Your task to perform on an android device: Open calendar and show me the second week of next month Image 0: 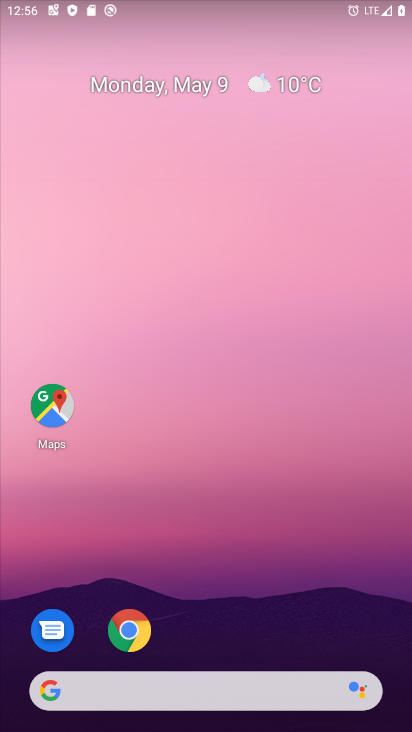
Step 0: drag from (347, 628) to (295, 44)
Your task to perform on an android device: Open calendar and show me the second week of next month Image 1: 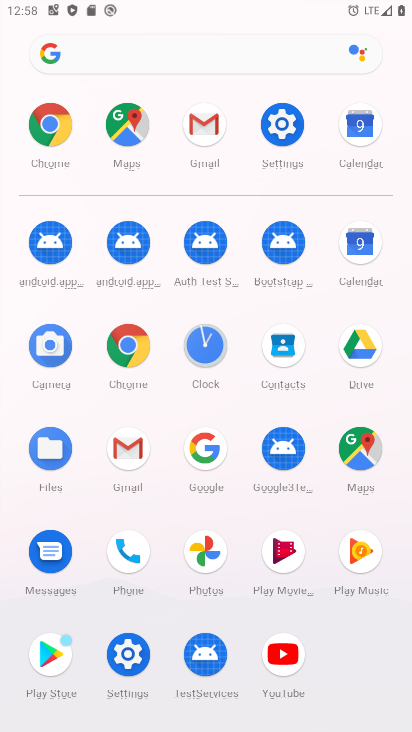
Step 1: click (360, 243)
Your task to perform on an android device: Open calendar and show me the second week of next month Image 2: 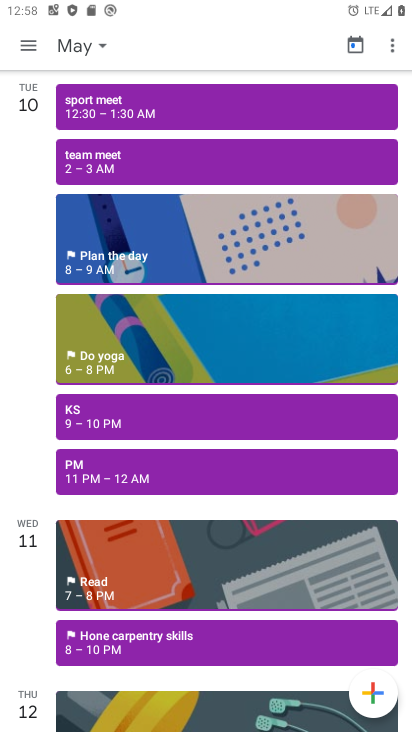
Step 2: click (60, 45)
Your task to perform on an android device: Open calendar and show me the second week of next month Image 3: 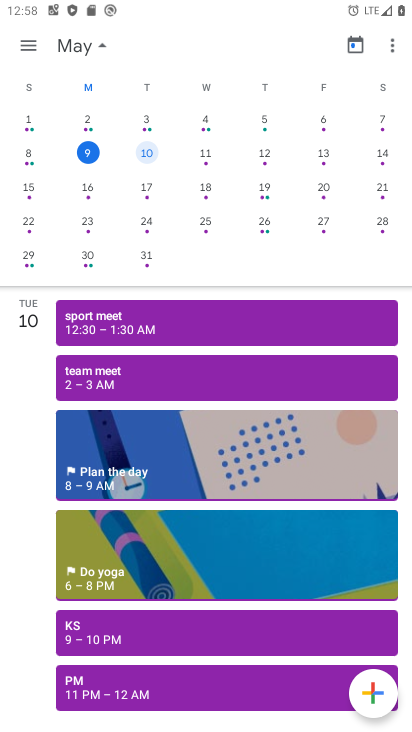
Step 3: drag from (340, 163) to (6, 178)
Your task to perform on an android device: Open calendar and show me the second week of next month Image 4: 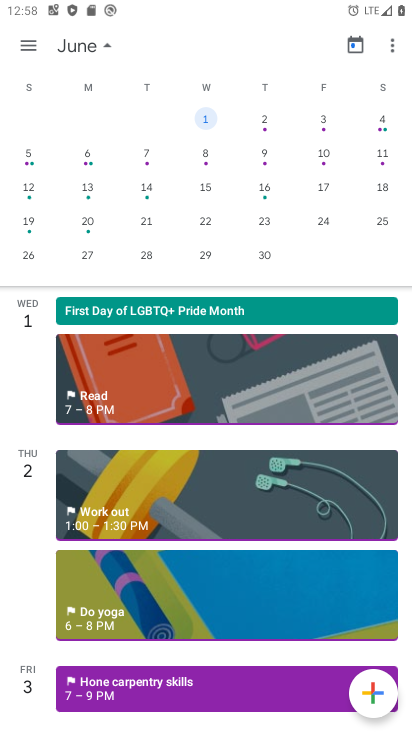
Step 4: click (152, 192)
Your task to perform on an android device: Open calendar and show me the second week of next month Image 5: 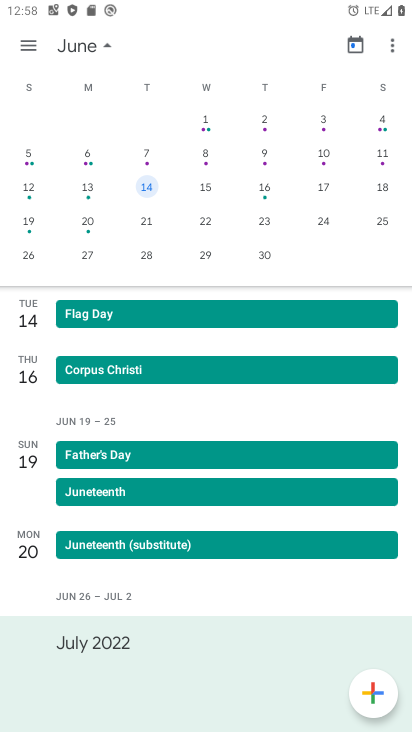
Step 5: task complete